Your task to perform on an android device: Search for sushi restaurants on Maps Image 0: 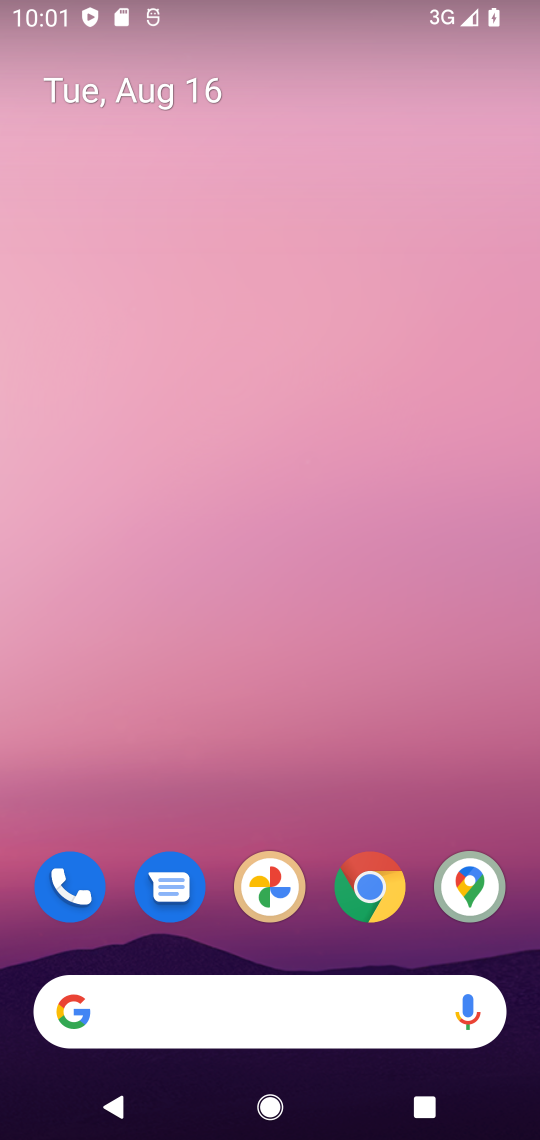
Step 0: press home button
Your task to perform on an android device: Search for sushi restaurants on Maps Image 1: 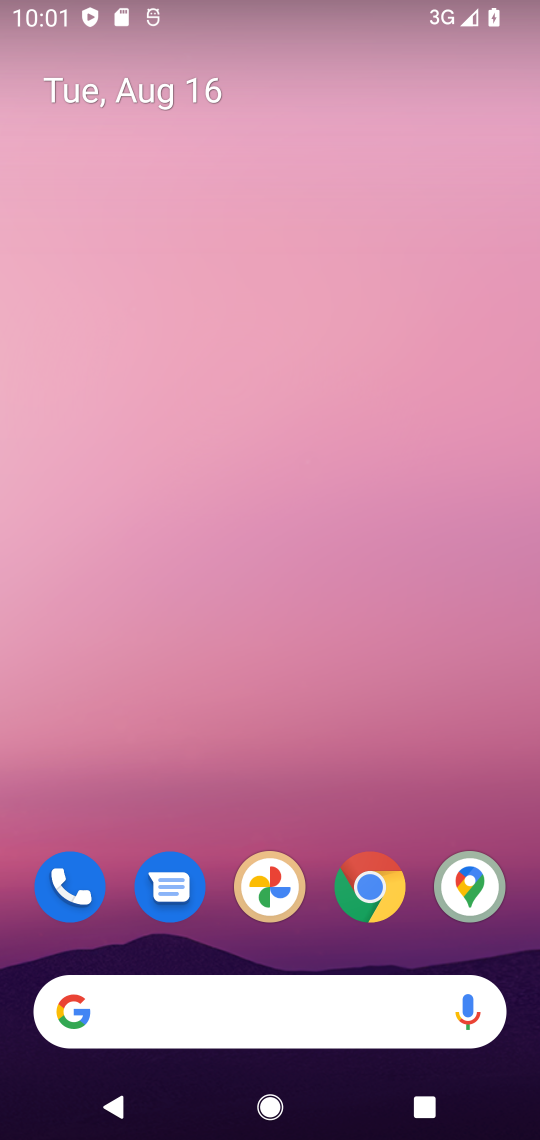
Step 1: drag from (426, 819) to (481, 250)
Your task to perform on an android device: Search for sushi restaurants on Maps Image 2: 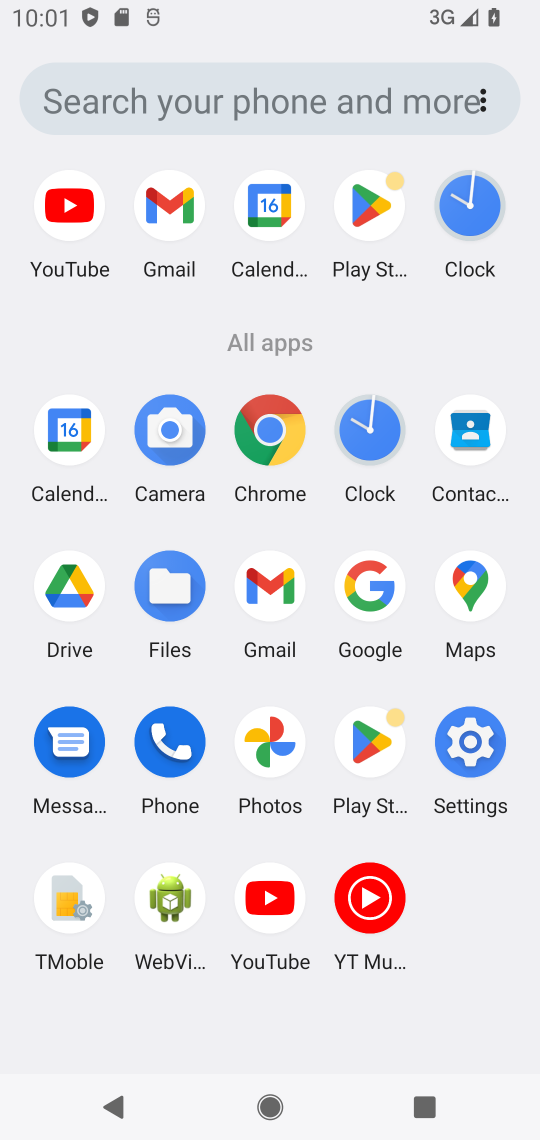
Step 2: click (465, 583)
Your task to perform on an android device: Search for sushi restaurants on Maps Image 3: 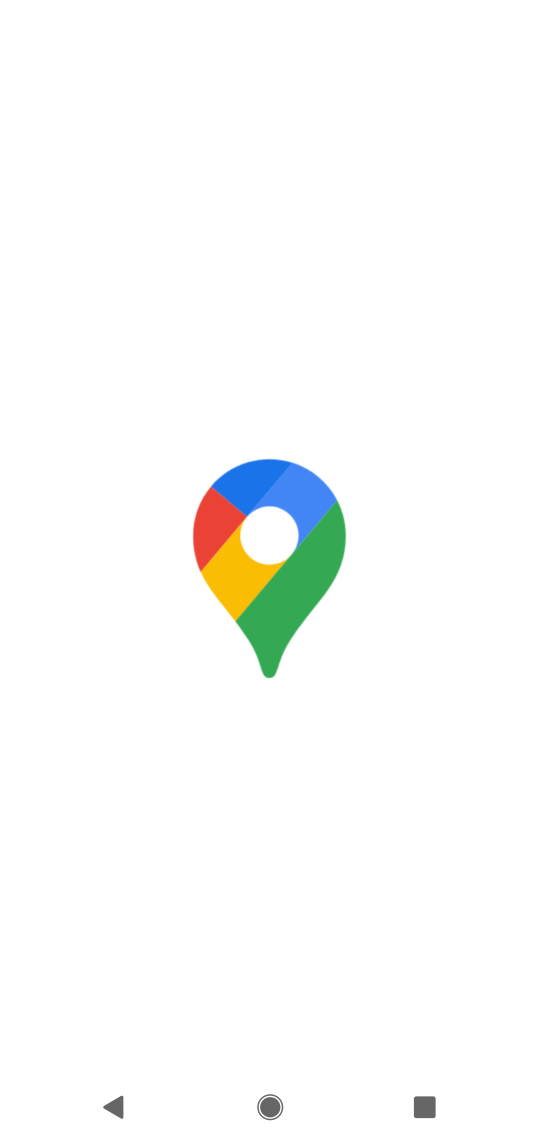
Step 3: task complete